Your task to perform on an android device: turn on translation in the chrome app Image 0: 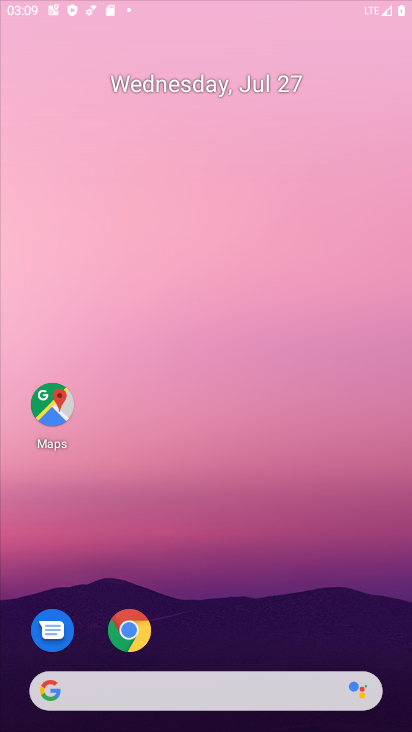
Step 0: drag from (208, 596) to (113, 238)
Your task to perform on an android device: turn on translation in the chrome app Image 1: 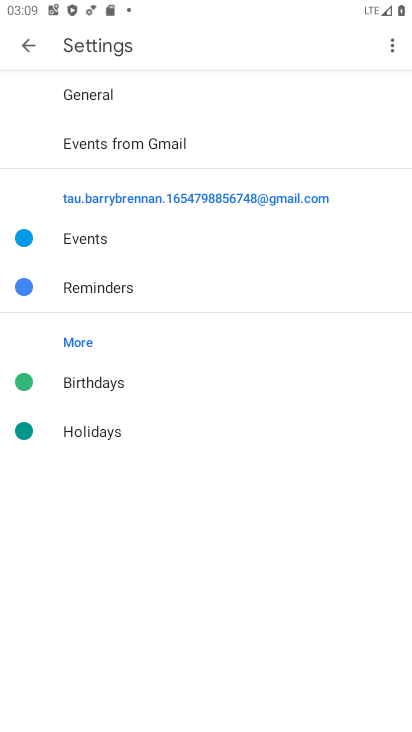
Step 1: drag from (243, 678) to (176, 303)
Your task to perform on an android device: turn on translation in the chrome app Image 2: 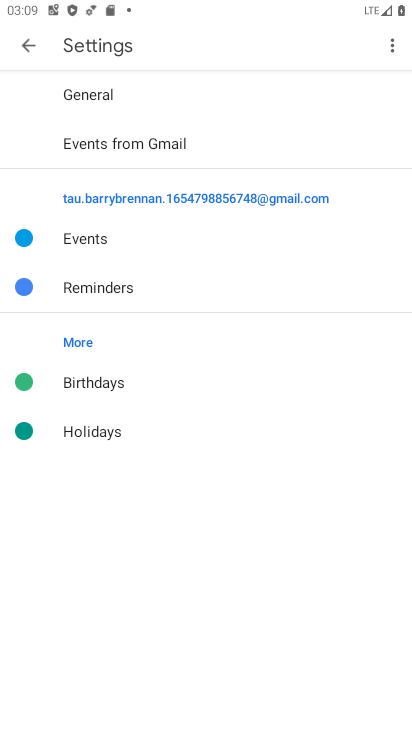
Step 2: click (14, 44)
Your task to perform on an android device: turn on translation in the chrome app Image 3: 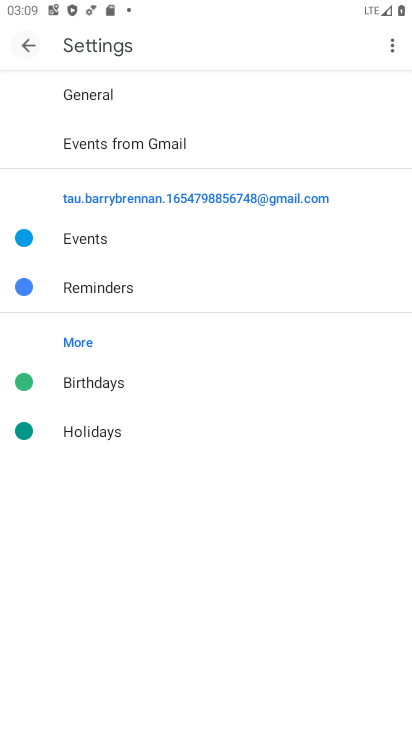
Step 3: click (14, 44)
Your task to perform on an android device: turn on translation in the chrome app Image 4: 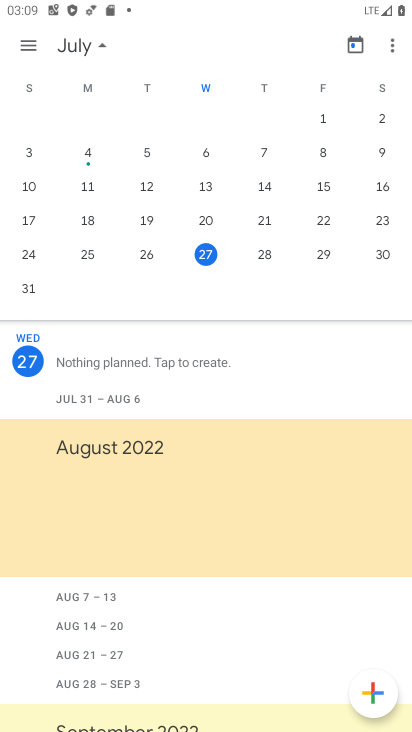
Step 4: press back button
Your task to perform on an android device: turn on translation in the chrome app Image 5: 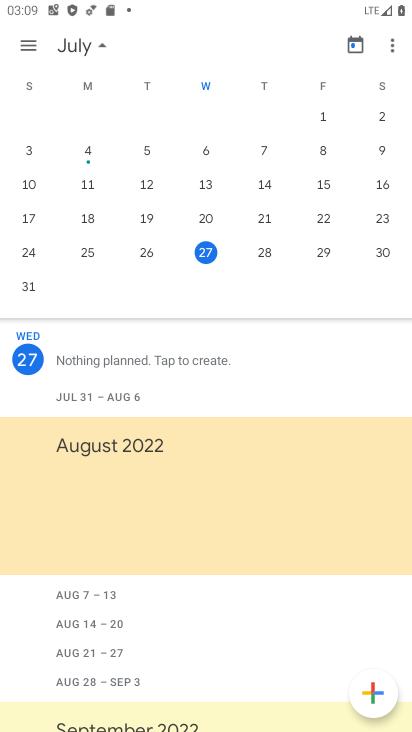
Step 5: press back button
Your task to perform on an android device: turn on translation in the chrome app Image 6: 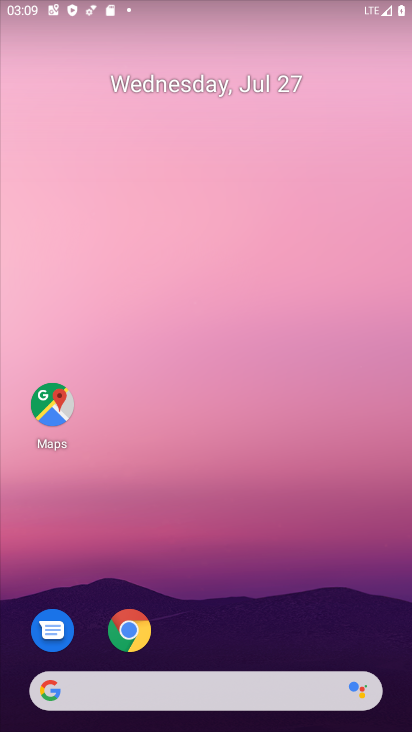
Step 6: drag from (144, 519) to (101, 69)
Your task to perform on an android device: turn on translation in the chrome app Image 7: 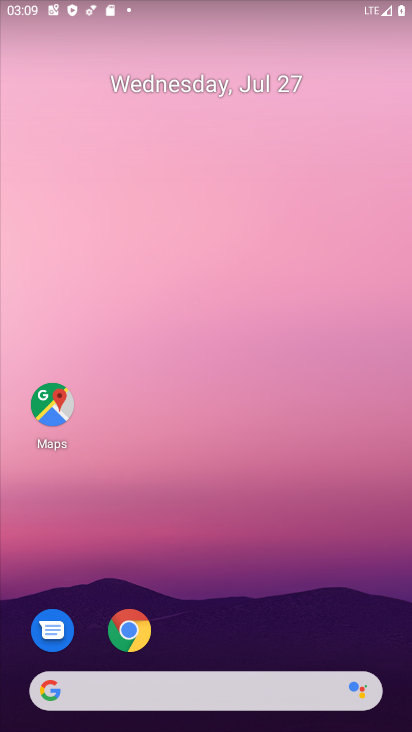
Step 7: drag from (244, 559) to (197, 99)
Your task to perform on an android device: turn on translation in the chrome app Image 8: 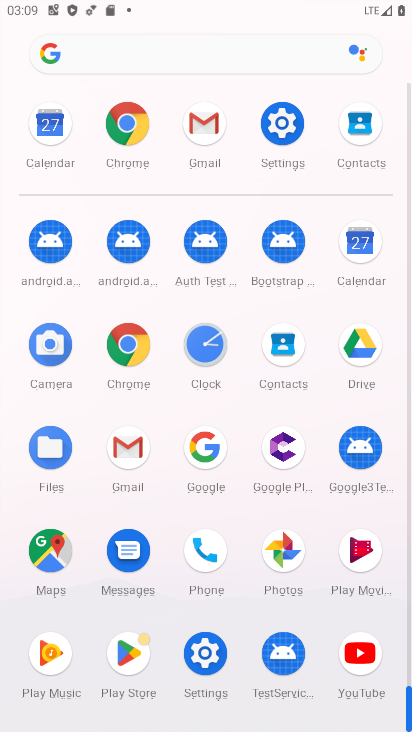
Step 8: drag from (276, 462) to (203, 46)
Your task to perform on an android device: turn on translation in the chrome app Image 9: 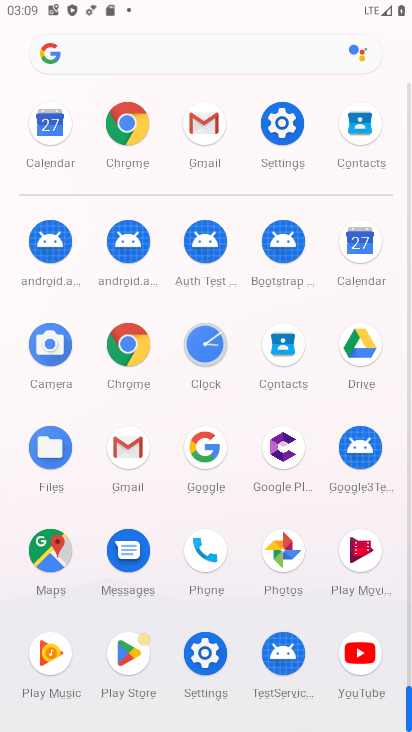
Step 9: click (121, 112)
Your task to perform on an android device: turn on translation in the chrome app Image 10: 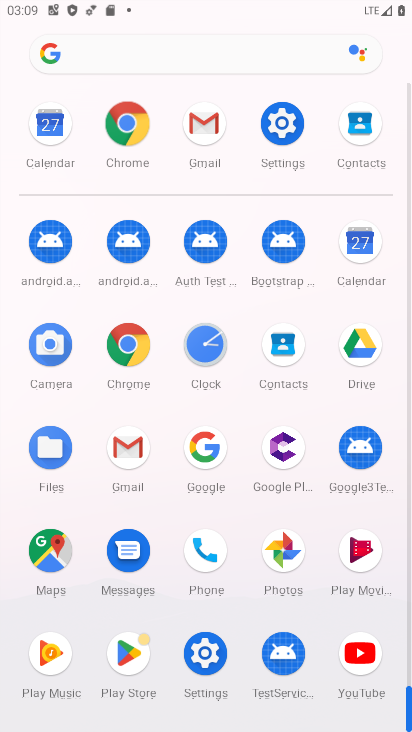
Step 10: click (121, 128)
Your task to perform on an android device: turn on translation in the chrome app Image 11: 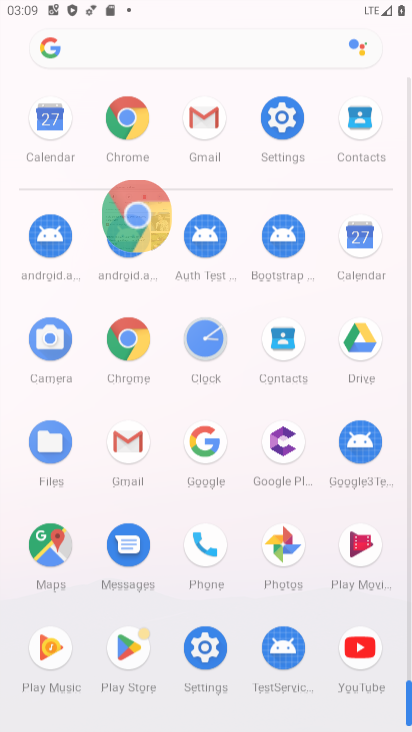
Step 11: click (120, 126)
Your task to perform on an android device: turn on translation in the chrome app Image 12: 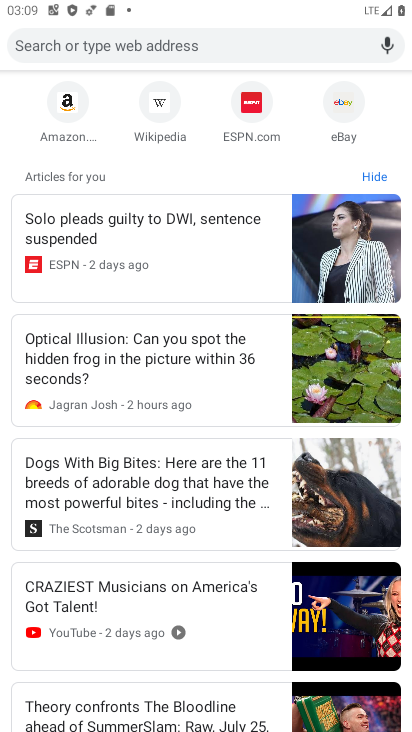
Step 12: drag from (381, 44) to (278, 329)
Your task to perform on an android device: turn on translation in the chrome app Image 13: 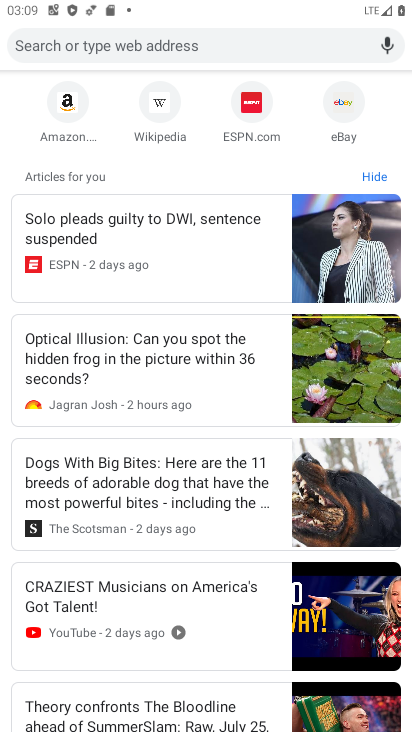
Step 13: drag from (306, 155) to (197, 502)
Your task to perform on an android device: turn on translation in the chrome app Image 14: 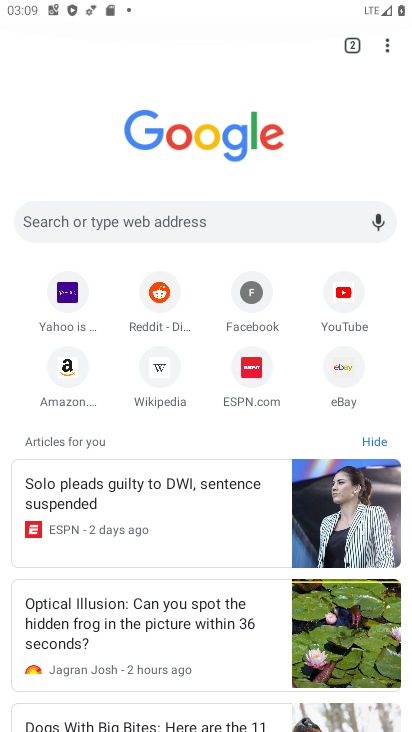
Step 14: drag from (207, 330) to (114, 650)
Your task to perform on an android device: turn on translation in the chrome app Image 15: 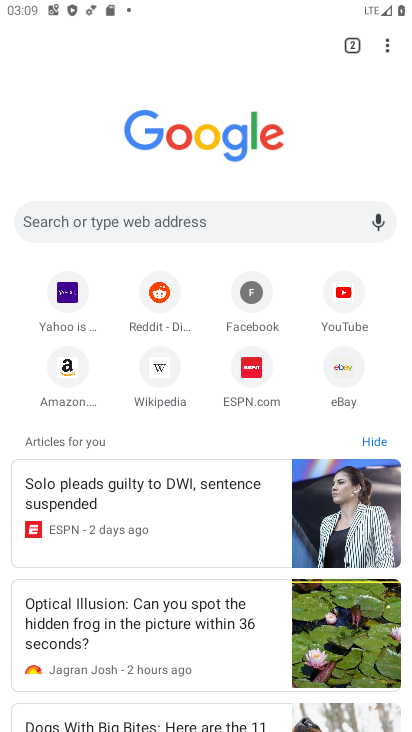
Step 15: drag from (382, 42) to (217, 377)
Your task to perform on an android device: turn on translation in the chrome app Image 16: 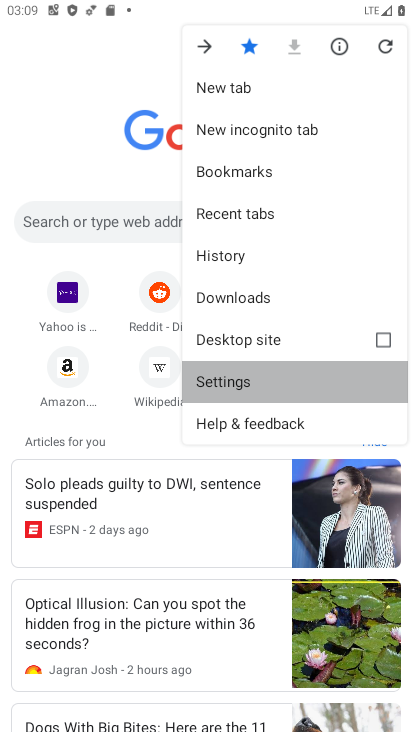
Step 16: click (221, 378)
Your task to perform on an android device: turn on translation in the chrome app Image 17: 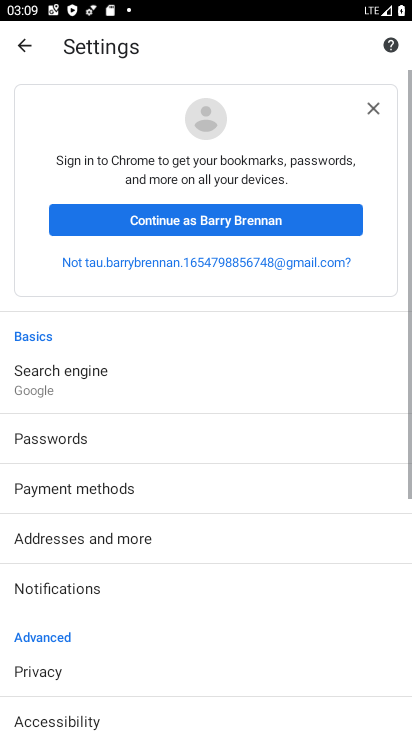
Step 17: drag from (127, 545) to (64, 127)
Your task to perform on an android device: turn on translation in the chrome app Image 18: 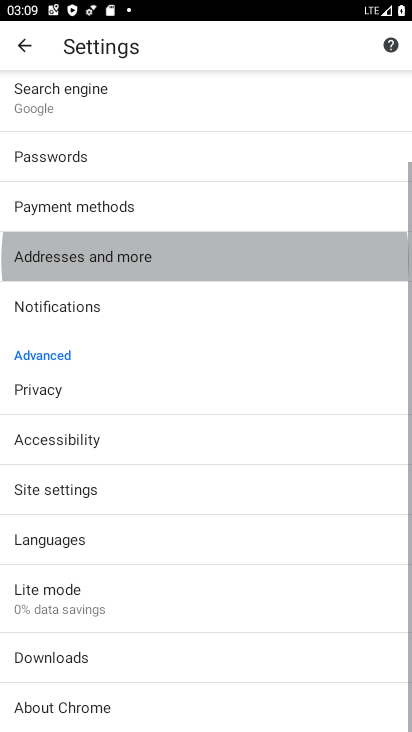
Step 18: drag from (116, 503) to (108, 135)
Your task to perform on an android device: turn on translation in the chrome app Image 19: 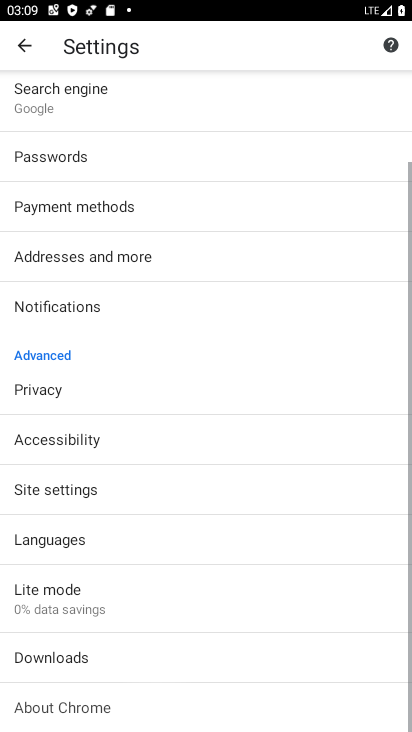
Step 19: drag from (132, 485) to (133, 242)
Your task to perform on an android device: turn on translation in the chrome app Image 20: 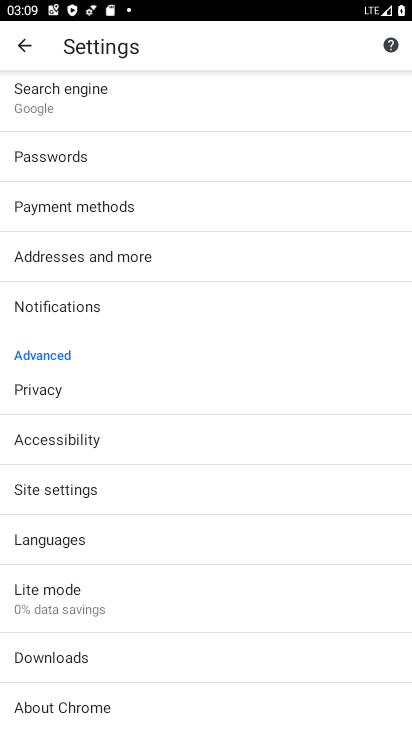
Step 20: click (110, 541)
Your task to perform on an android device: turn on translation in the chrome app Image 21: 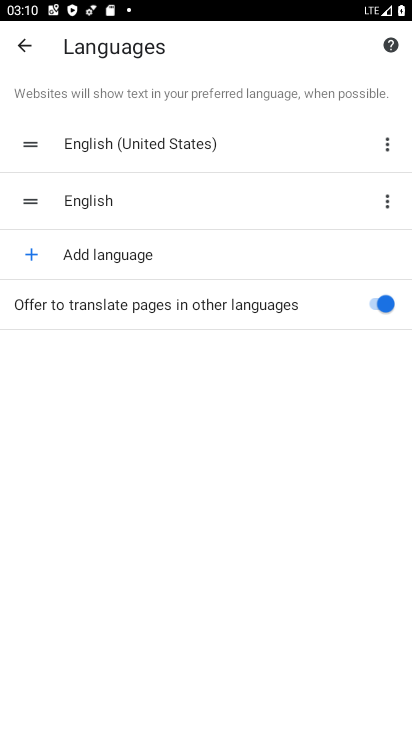
Step 21: task complete